Your task to perform on an android device: Go to wifi settings Image 0: 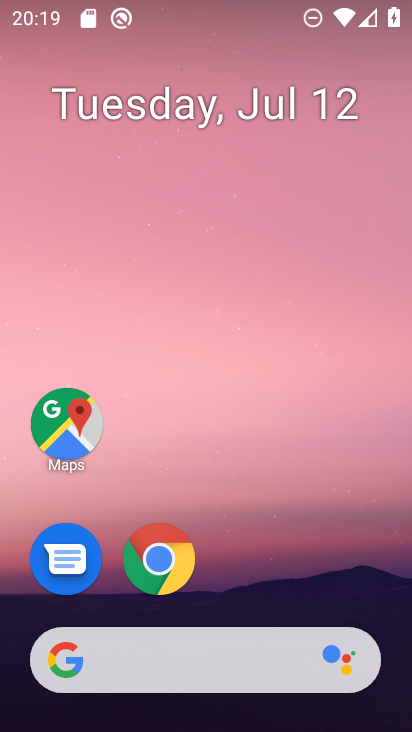
Step 0: drag from (368, 594) to (364, 137)
Your task to perform on an android device: Go to wifi settings Image 1: 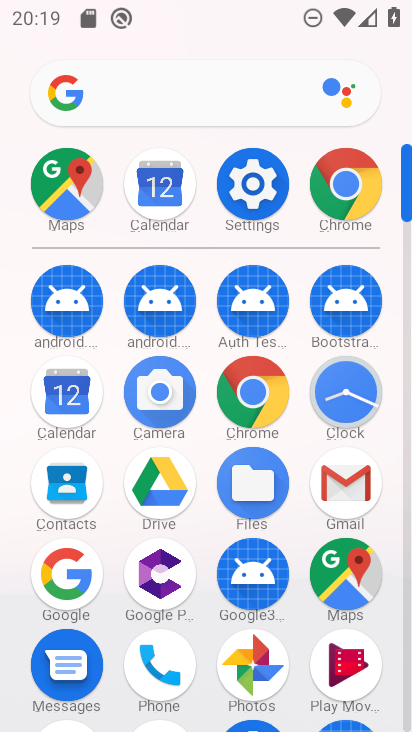
Step 1: click (267, 197)
Your task to perform on an android device: Go to wifi settings Image 2: 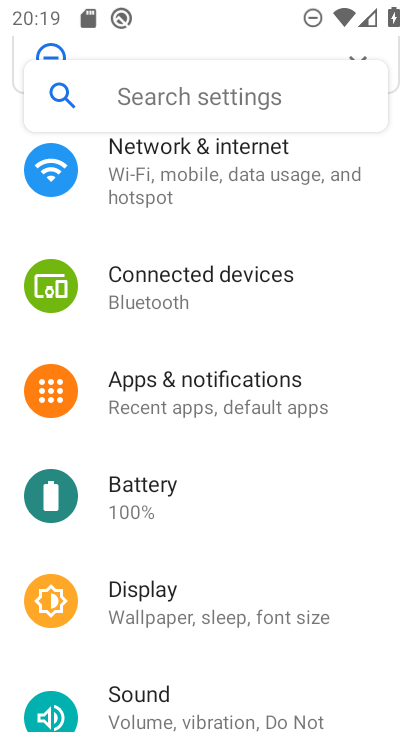
Step 2: drag from (334, 216) to (354, 327)
Your task to perform on an android device: Go to wifi settings Image 3: 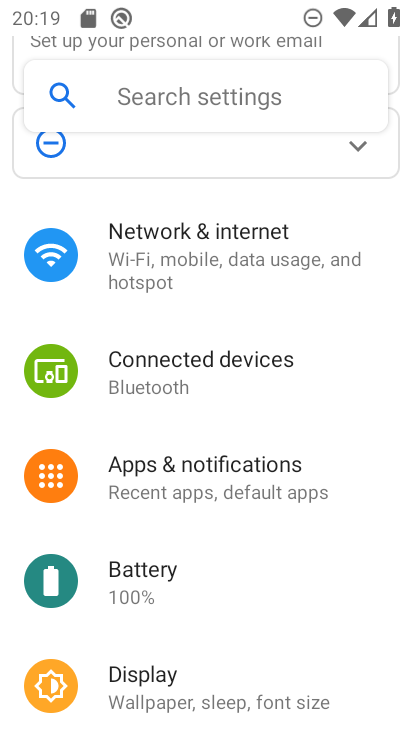
Step 3: drag from (377, 207) to (367, 537)
Your task to perform on an android device: Go to wifi settings Image 4: 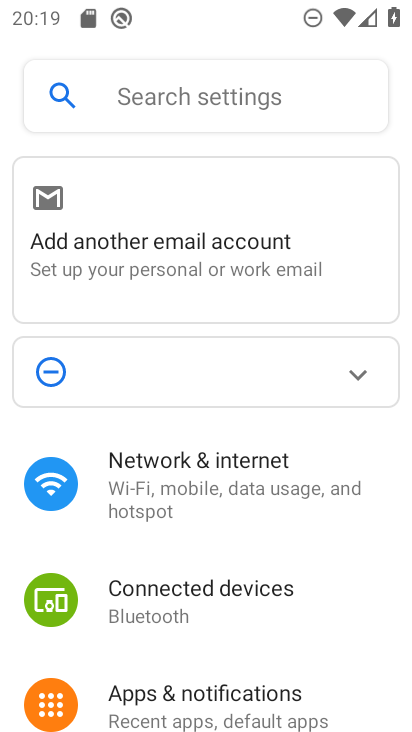
Step 4: click (268, 482)
Your task to perform on an android device: Go to wifi settings Image 5: 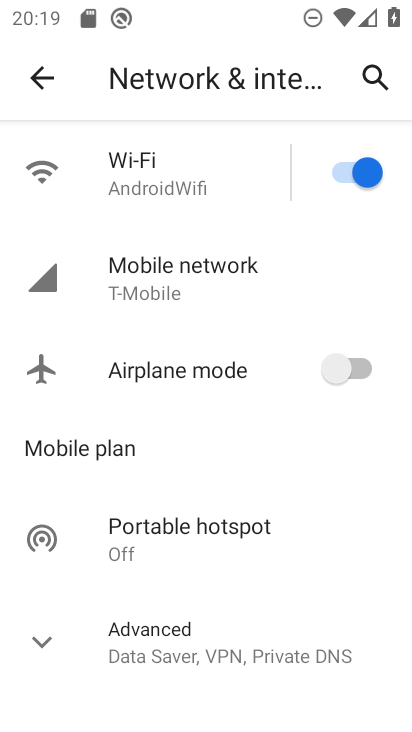
Step 5: click (194, 165)
Your task to perform on an android device: Go to wifi settings Image 6: 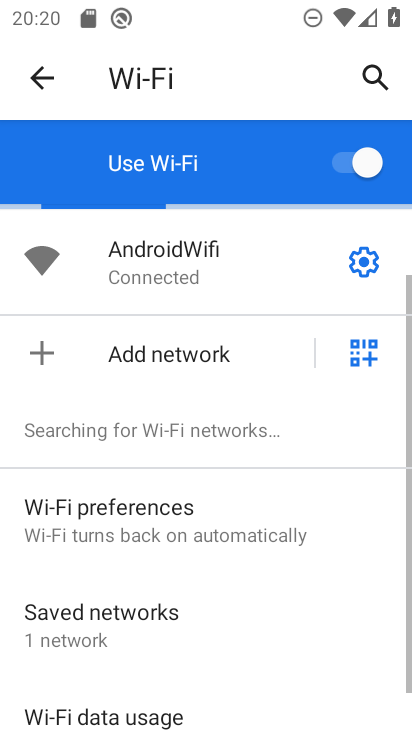
Step 6: task complete